Your task to perform on an android device: show emergency info Image 0: 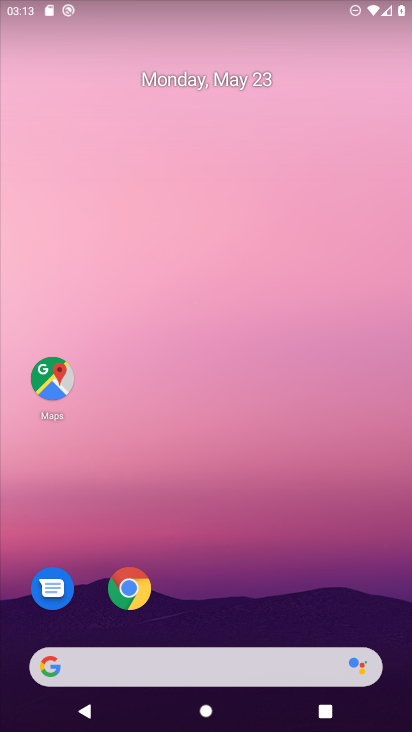
Step 0: drag from (234, 725) to (230, 85)
Your task to perform on an android device: show emergency info Image 1: 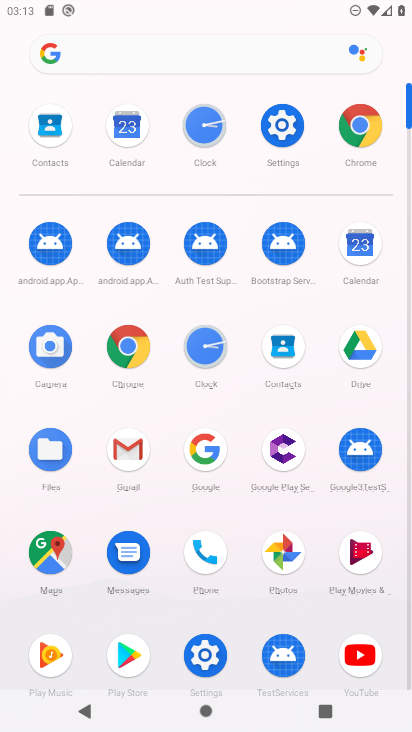
Step 1: click (283, 138)
Your task to perform on an android device: show emergency info Image 2: 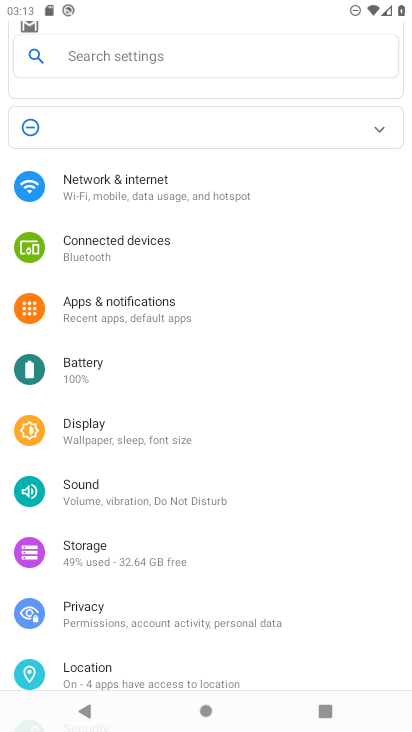
Step 2: drag from (145, 657) to (174, 162)
Your task to perform on an android device: show emergency info Image 3: 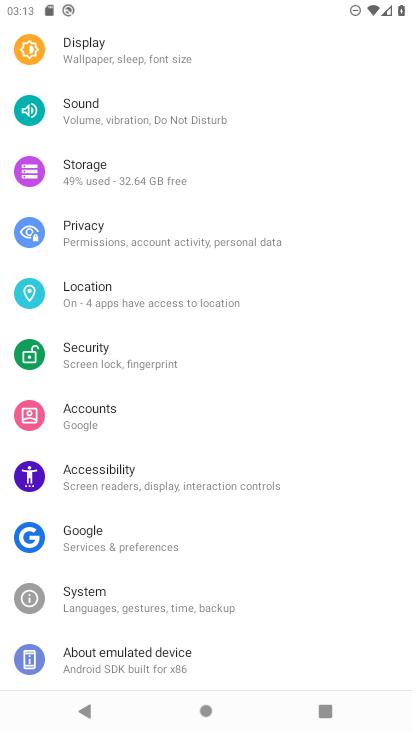
Step 3: drag from (172, 607) to (180, 340)
Your task to perform on an android device: show emergency info Image 4: 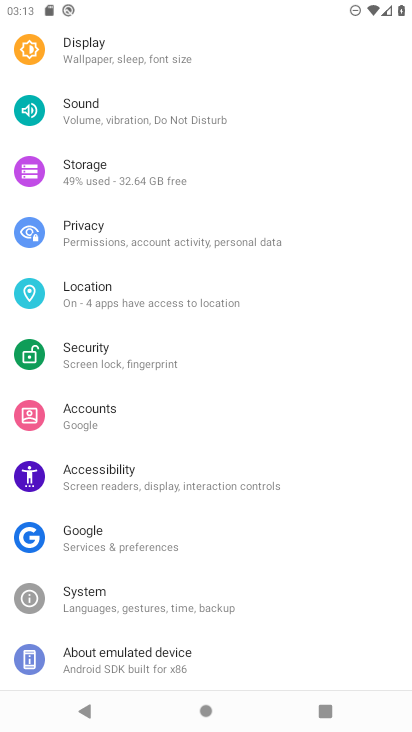
Step 4: drag from (161, 644) to (169, 232)
Your task to perform on an android device: show emergency info Image 5: 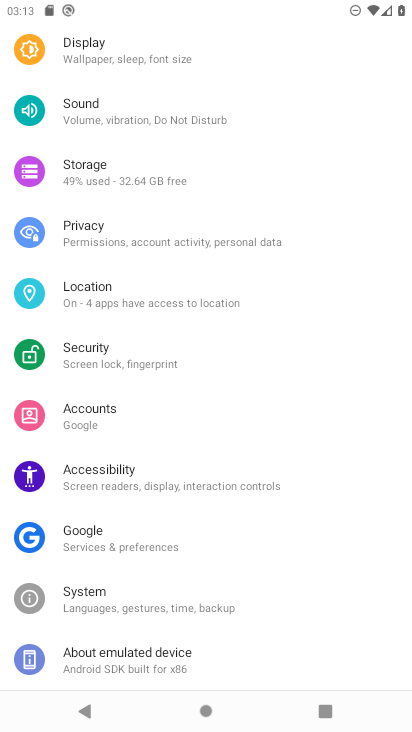
Step 5: click (106, 659)
Your task to perform on an android device: show emergency info Image 6: 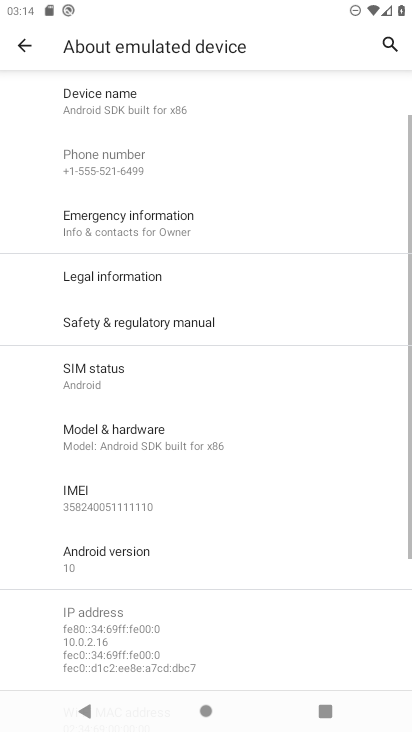
Step 6: task complete